Your task to perform on an android device: move an email to a new category in the gmail app Image 0: 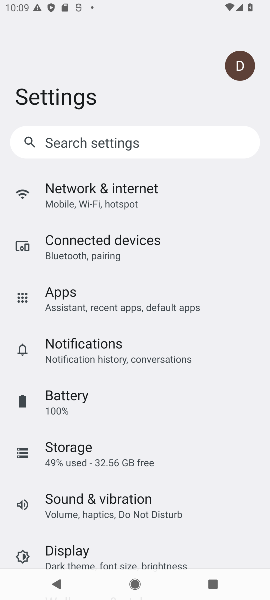
Step 0: press home button
Your task to perform on an android device: move an email to a new category in the gmail app Image 1: 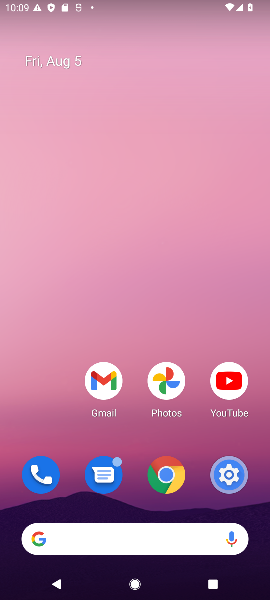
Step 1: click (108, 393)
Your task to perform on an android device: move an email to a new category in the gmail app Image 2: 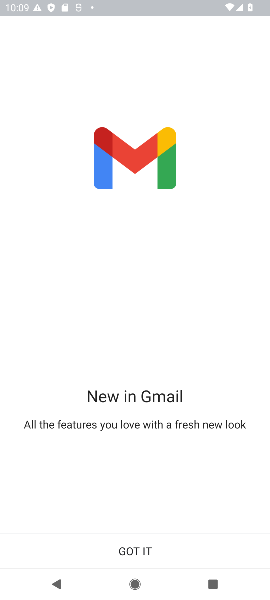
Step 2: click (151, 554)
Your task to perform on an android device: move an email to a new category in the gmail app Image 3: 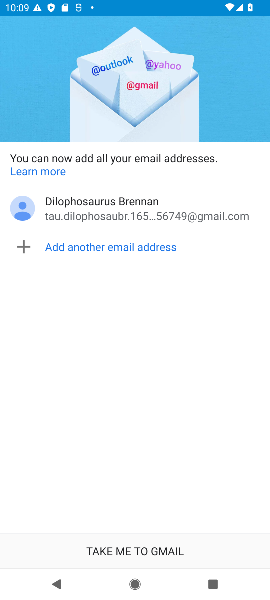
Step 3: click (146, 546)
Your task to perform on an android device: move an email to a new category in the gmail app Image 4: 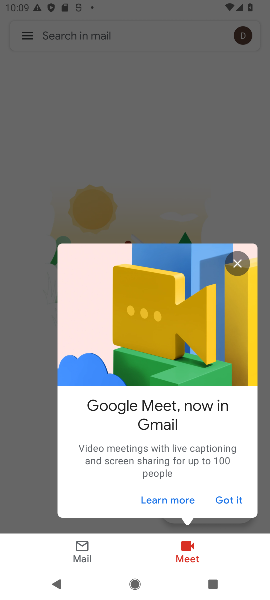
Step 4: click (234, 260)
Your task to perform on an android device: move an email to a new category in the gmail app Image 5: 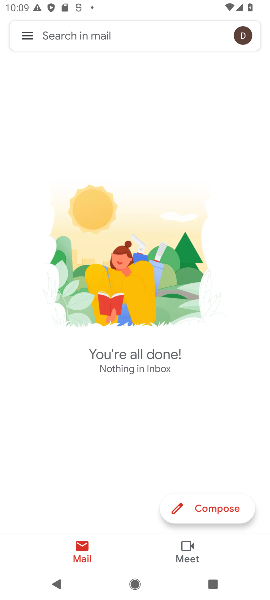
Step 5: task complete